Your task to perform on an android device: change the clock style Image 0: 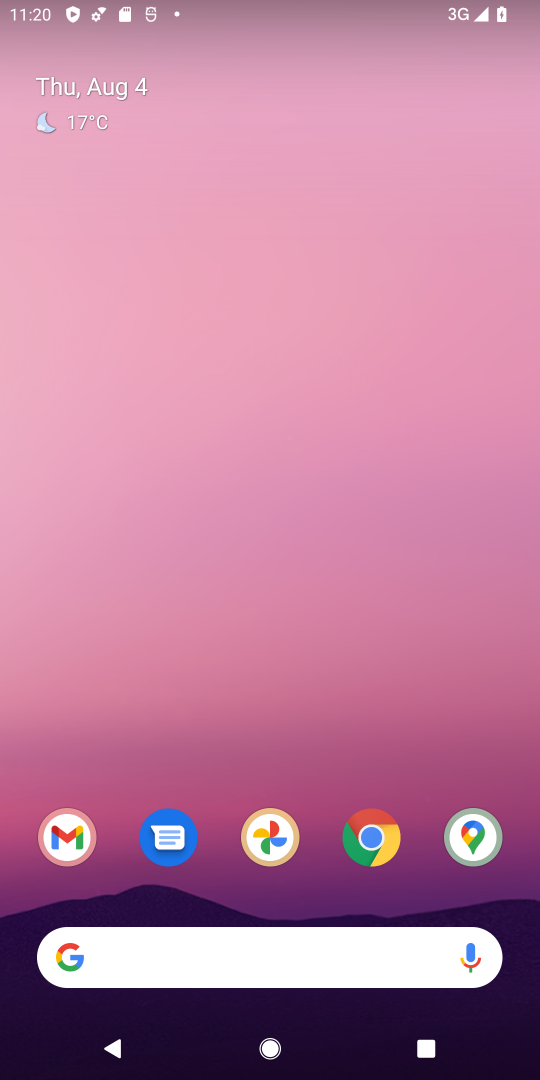
Step 0: drag from (411, 879) to (250, 19)
Your task to perform on an android device: change the clock style Image 1: 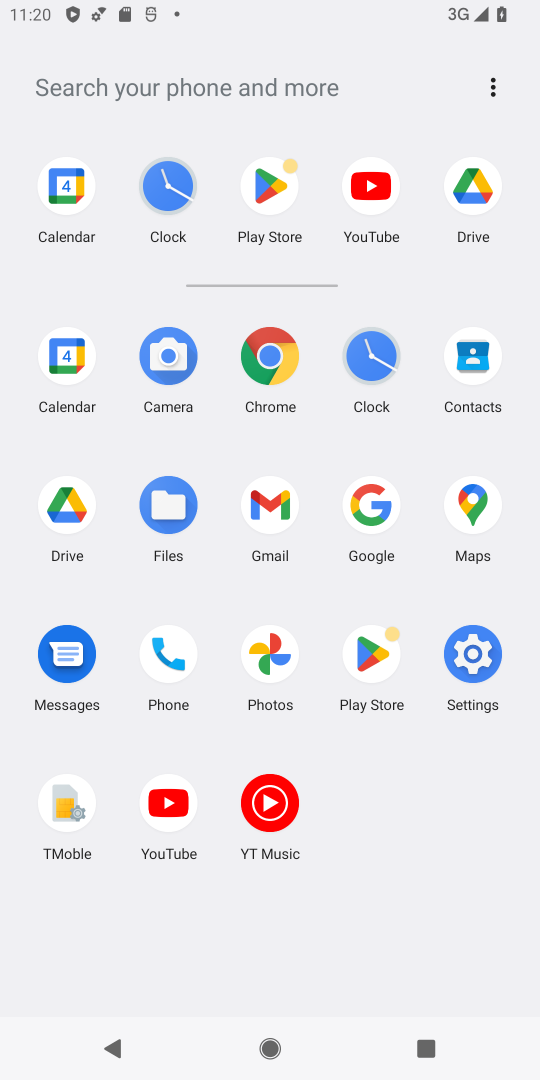
Step 1: click (361, 341)
Your task to perform on an android device: change the clock style Image 2: 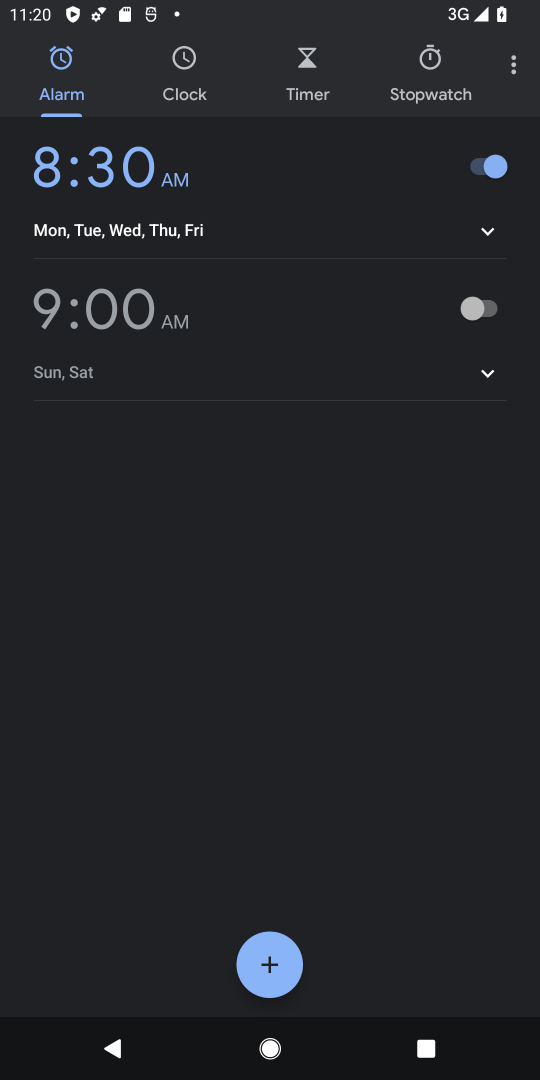
Step 2: click (520, 50)
Your task to perform on an android device: change the clock style Image 3: 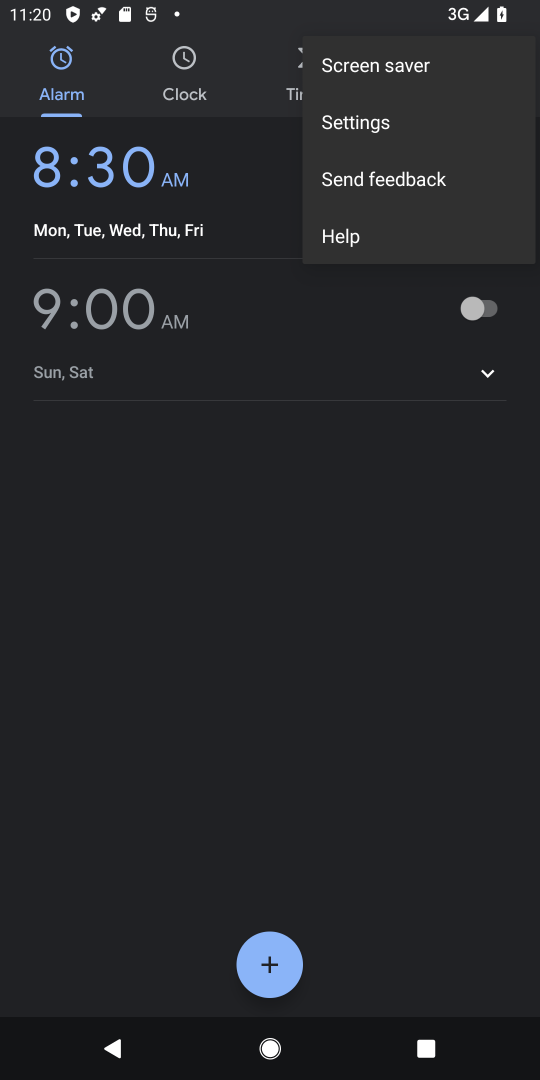
Step 3: click (322, 110)
Your task to perform on an android device: change the clock style Image 4: 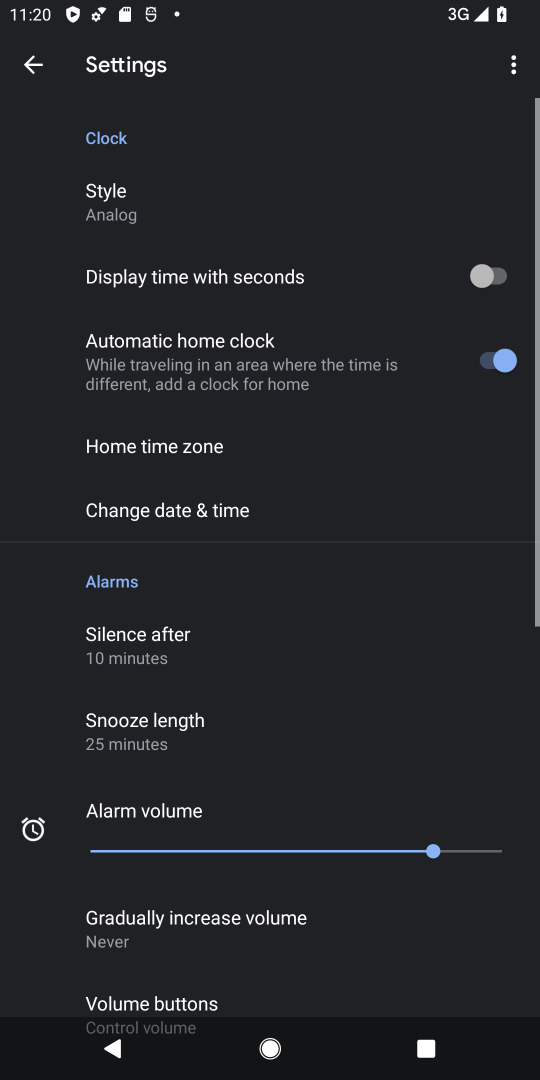
Step 4: click (60, 186)
Your task to perform on an android device: change the clock style Image 5: 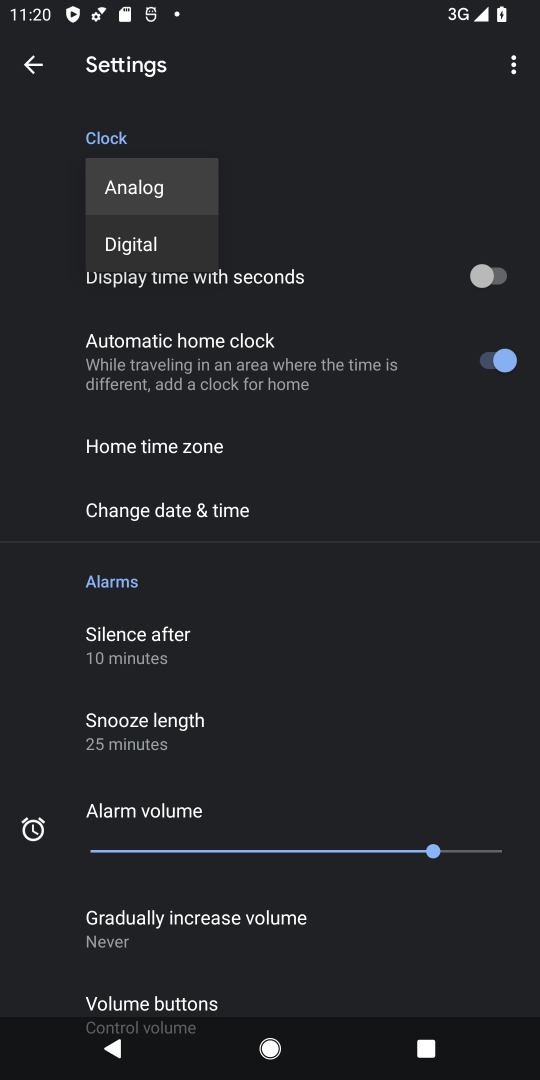
Step 5: click (146, 258)
Your task to perform on an android device: change the clock style Image 6: 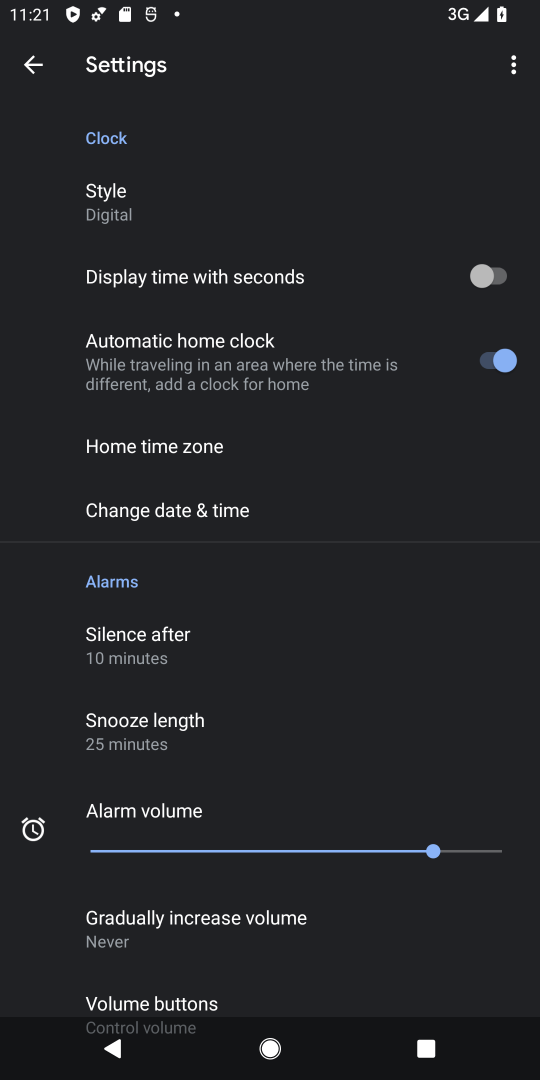
Step 6: task complete